Your task to perform on an android device: Show me popular games on the Play Store Image 0: 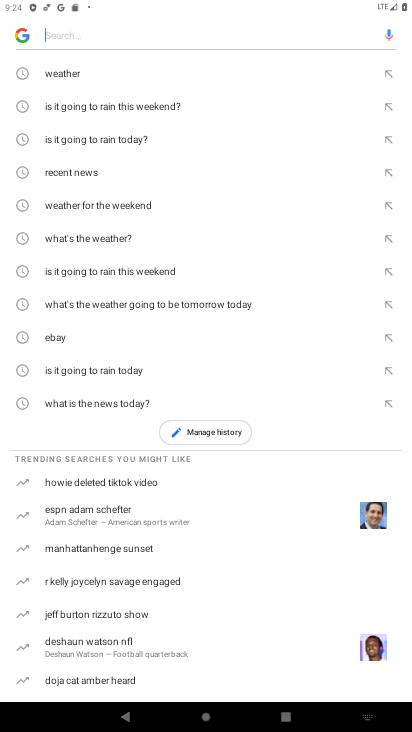
Step 0: press home button
Your task to perform on an android device: Show me popular games on the Play Store Image 1: 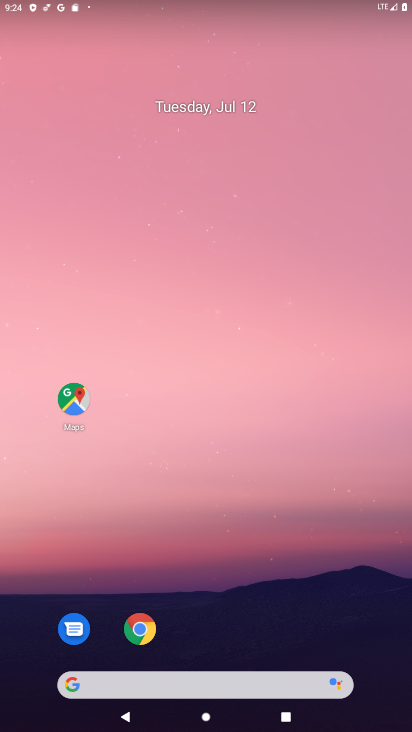
Step 1: drag from (225, 612) to (227, 189)
Your task to perform on an android device: Show me popular games on the Play Store Image 2: 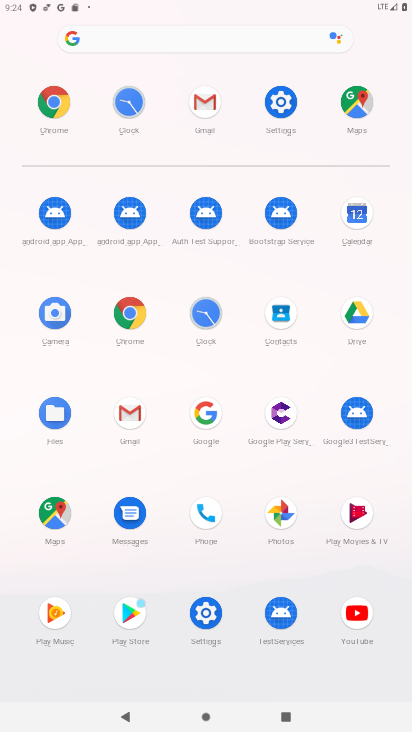
Step 2: click (133, 622)
Your task to perform on an android device: Show me popular games on the Play Store Image 3: 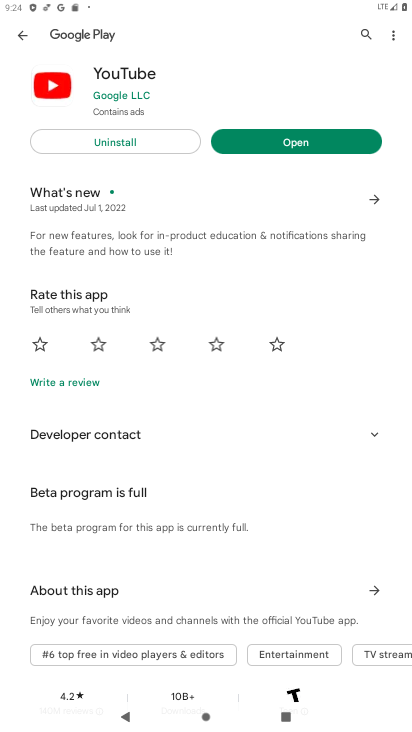
Step 3: click (24, 30)
Your task to perform on an android device: Show me popular games on the Play Store Image 4: 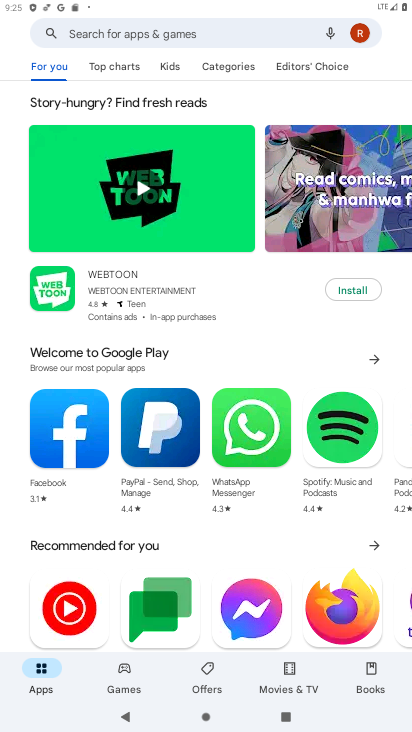
Step 4: click (120, 666)
Your task to perform on an android device: Show me popular games on the Play Store Image 5: 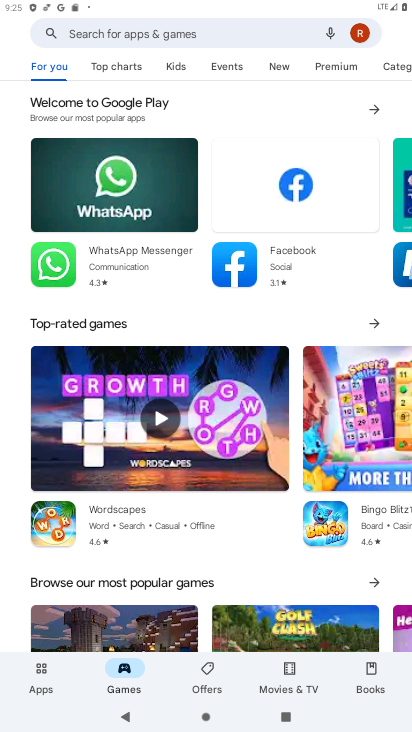
Step 5: click (257, 582)
Your task to perform on an android device: Show me popular games on the Play Store Image 6: 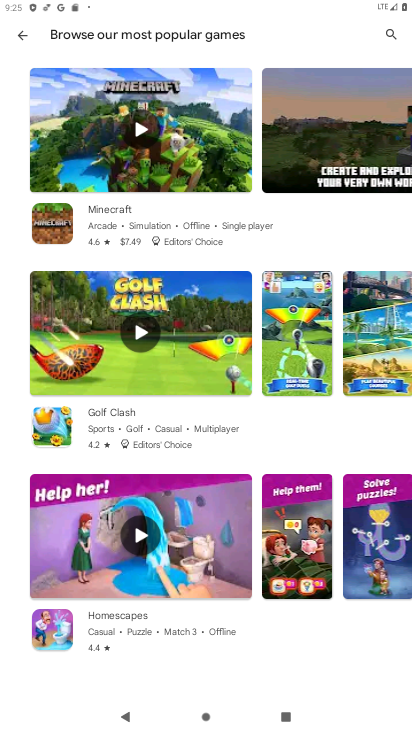
Step 6: task complete